Your task to perform on an android device: change your default location settings in chrome Image 0: 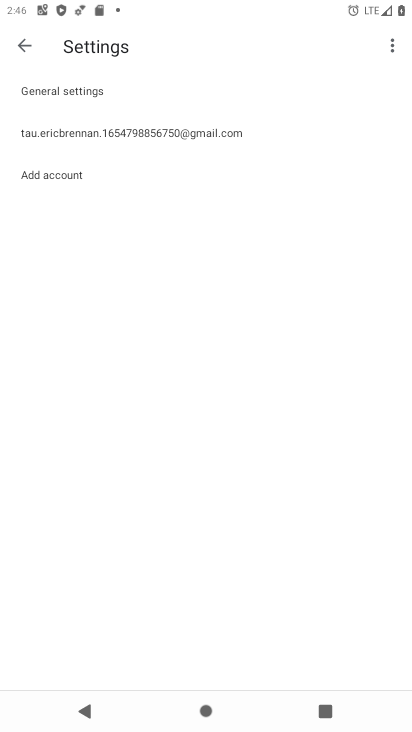
Step 0: press home button
Your task to perform on an android device: change your default location settings in chrome Image 1: 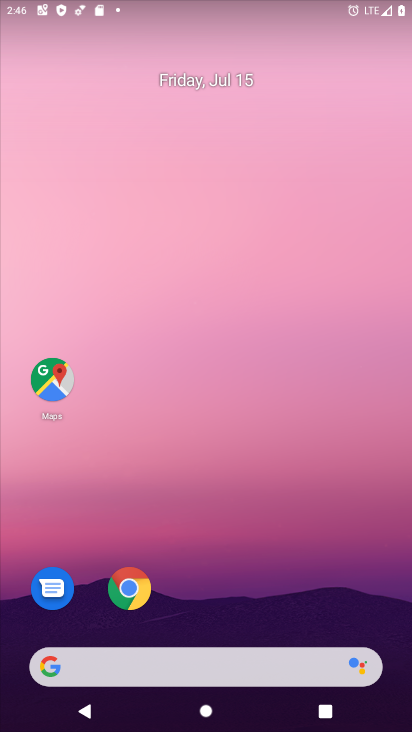
Step 1: click (128, 589)
Your task to perform on an android device: change your default location settings in chrome Image 2: 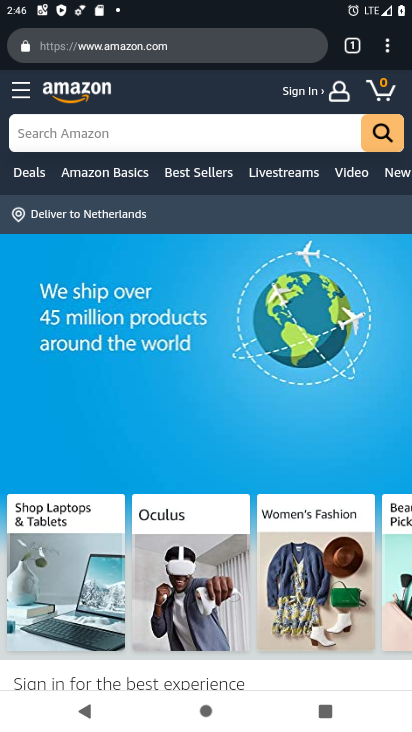
Step 2: click (389, 50)
Your task to perform on an android device: change your default location settings in chrome Image 3: 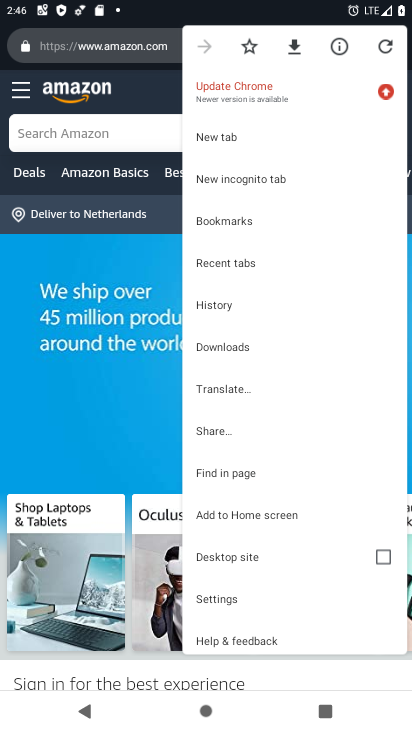
Step 3: click (223, 599)
Your task to perform on an android device: change your default location settings in chrome Image 4: 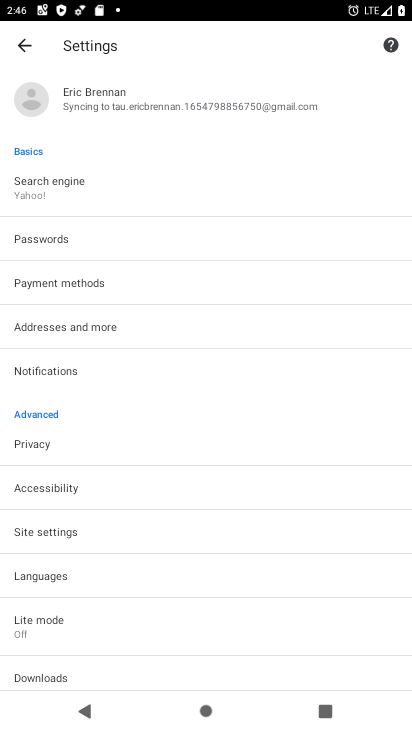
Step 4: click (69, 534)
Your task to perform on an android device: change your default location settings in chrome Image 5: 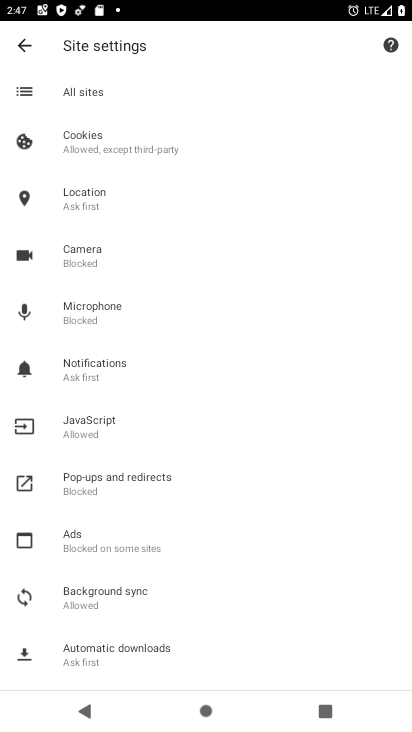
Step 5: click (85, 202)
Your task to perform on an android device: change your default location settings in chrome Image 6: 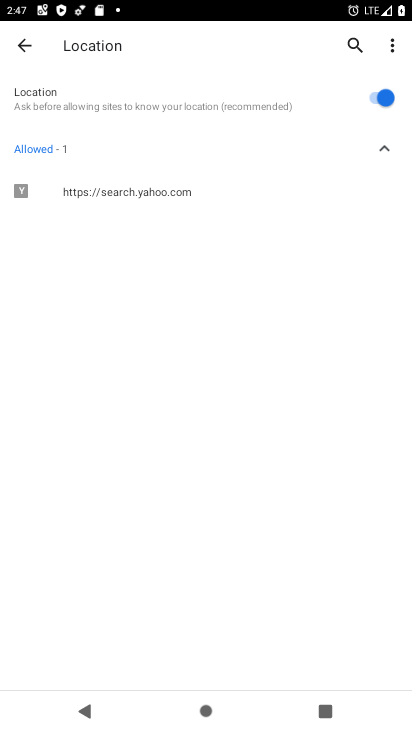
Step 6: click (386, 103)
Your task to perform on an android device: change your default location settings in chrome Image 7: 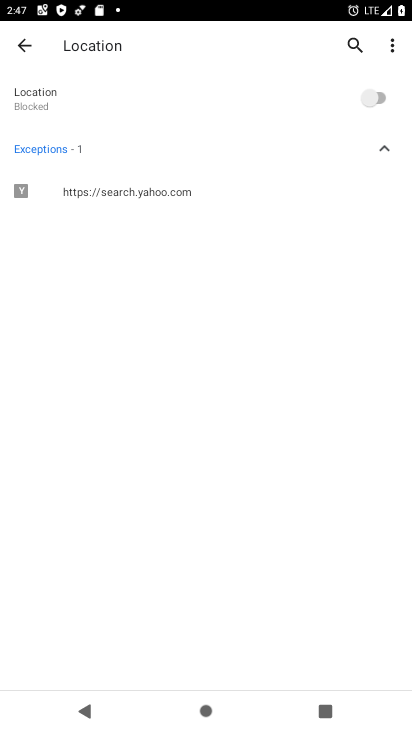
Step 7: task complete